Your task to perform on an android device: Open Reddit.com Image 0: 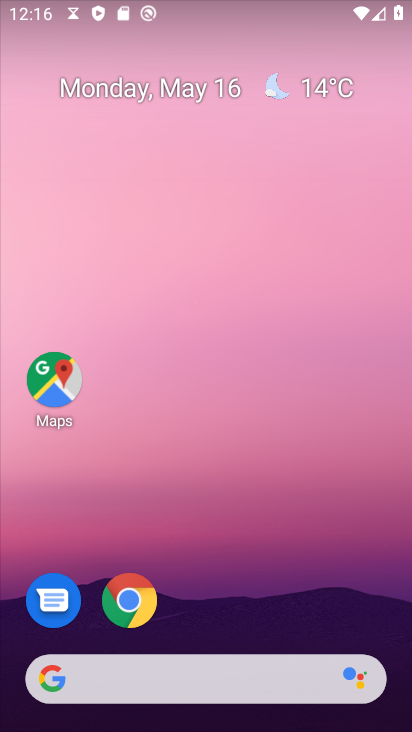
Step 0: drag from (221, 541) to (189, 51)
Your task to perform on an android device: Open Reddit.com Image 1: 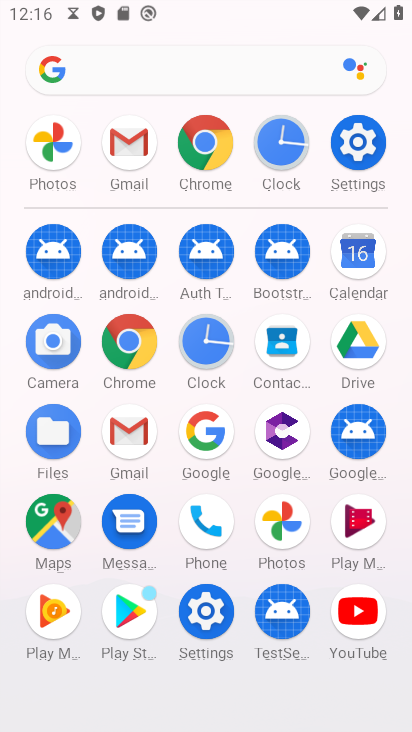
Step 1: drag from (13, 556) to (12, 293)
Your task to perform on an android device: Open Reddit.com Image 2: 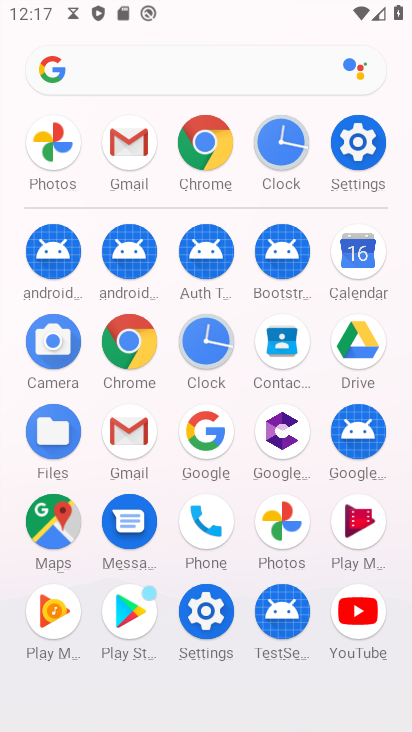
Step 2: click (126, 339)
Your task to perform on an android device: Open Reddit.com Image 3: 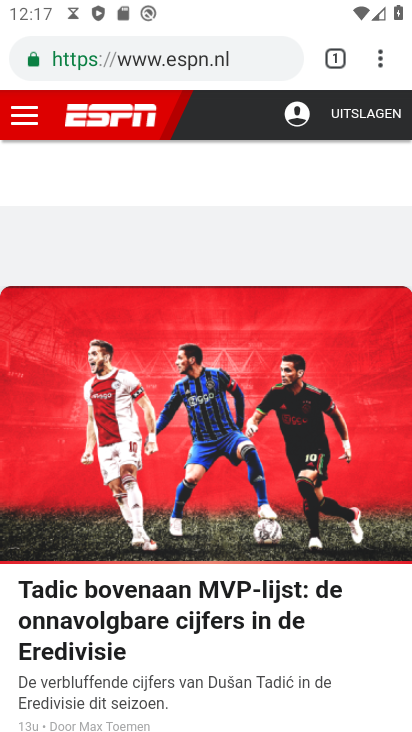
Step 3: click (207, 45)
Your task to perform on an android device: Open Reddit.com Image 4: 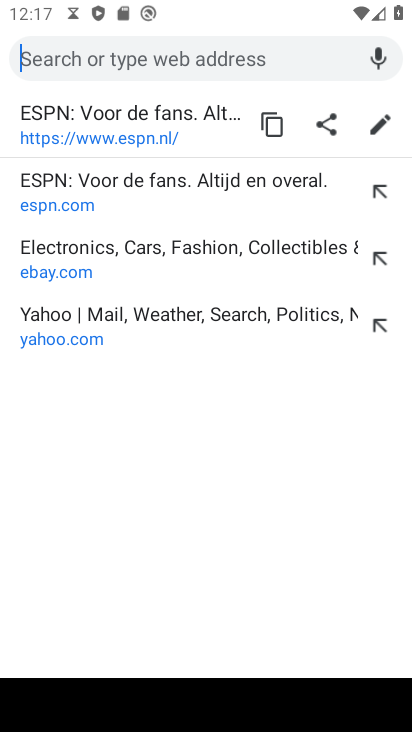
Step 4: type "Reddit.com"
Your task to perform on an android device: Open Reddit.com Image 5: 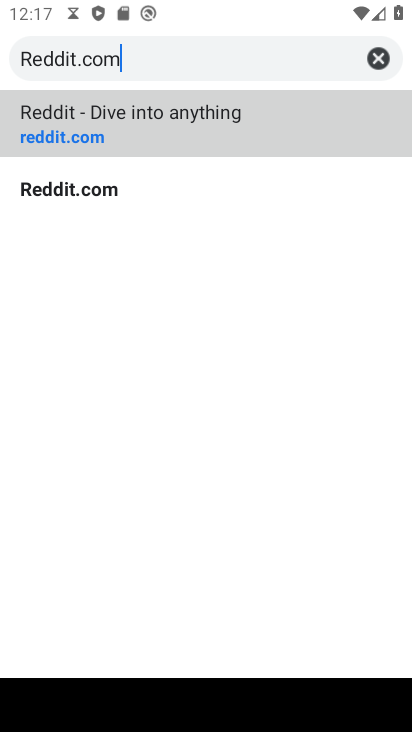
Step 5: type ""
Your task to perform on an android device: Open Reddit.com Image 6: 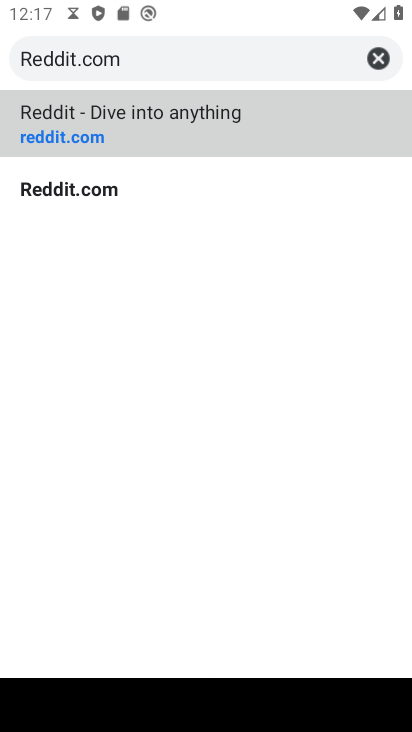
Step 6: click (106, 135)
Your task to perform on an android device: Open Reddit.com Image 7: 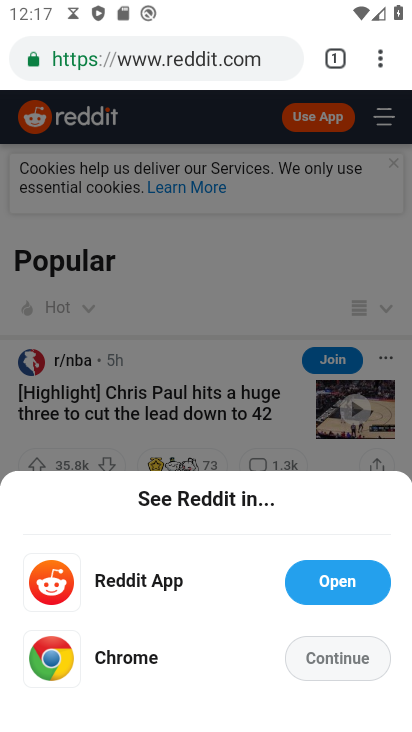
Step 7: task complete